Your task to perform on an android device: Open Maps and search for coffee Image 0: 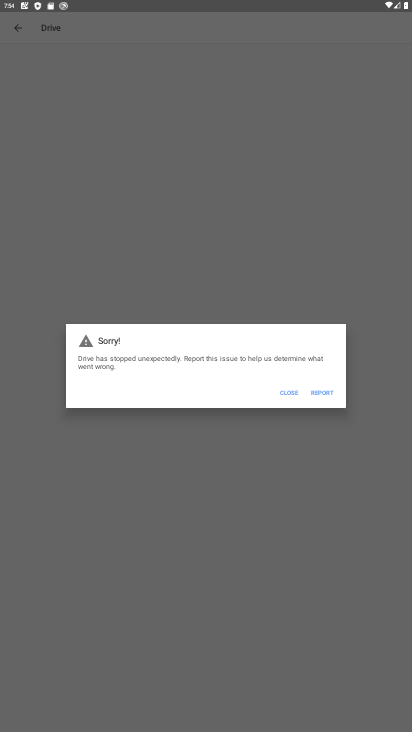
Step 0: press home button
Your task to perform on an android device: Open Maps and search for coffee Image 1: 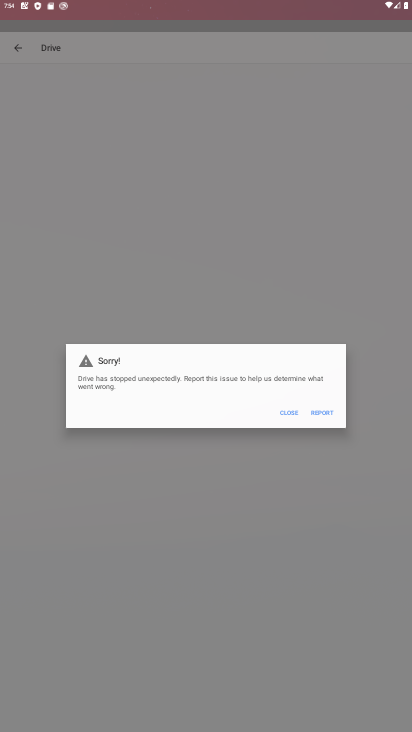
Step 1: drag from (209, 672) to (411, 529)
Your task to perform on an android device: Open Maps and search for coffee Image 2: 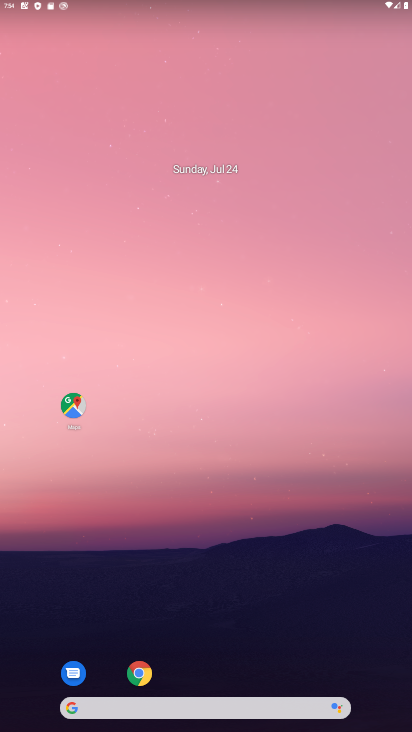
Step 2: drag from (183, 651) to (227, 0)
Your task to perform on an android device: Open Maps and search for coffee Image 3: 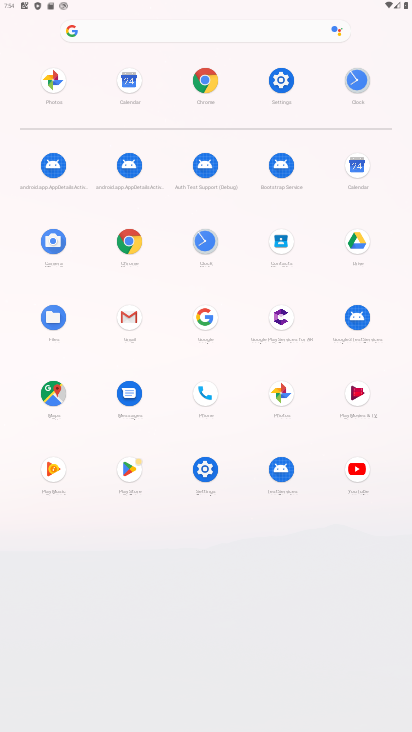
Step 3: click (45, 386)
Your task to perform on an android device: Open Maps and search for coffee Image 4: 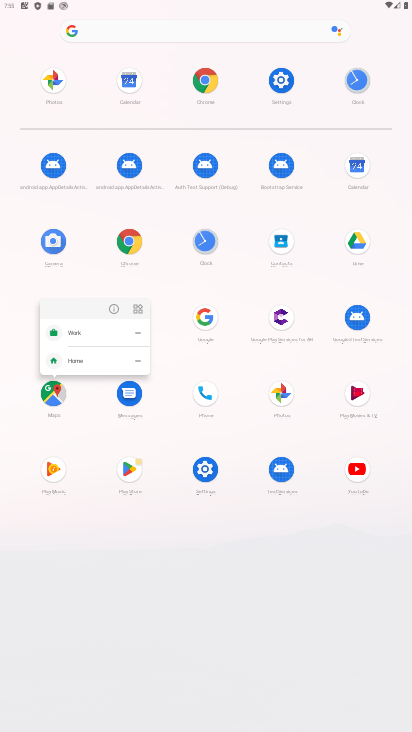
Step 4: click (113, 310)
Your task to perform on an android device: Open Maps and search for coffee Image 5: 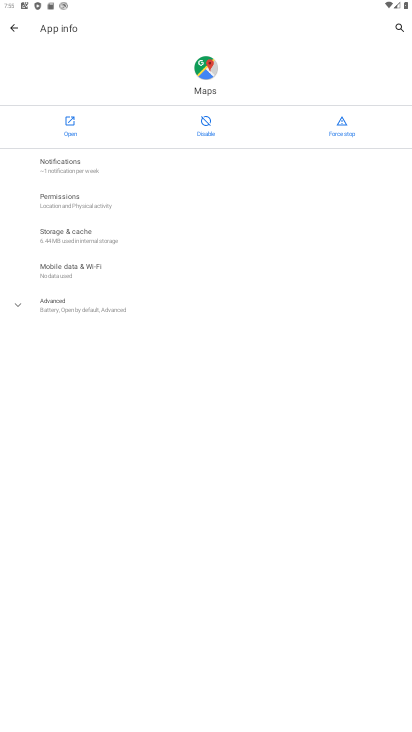
Step 5: drag from (188, 328) to (188, 237)
Your task to perform on an android device: Open Maps and search for coffee Image 6: 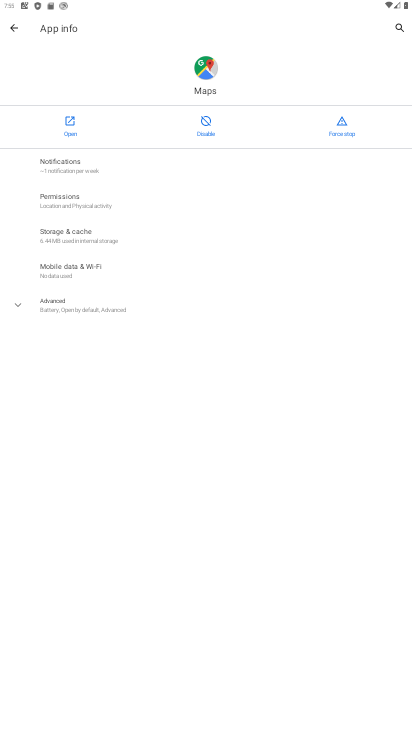
Step 6: click (67, 119)
Your task to perform on an android device: Open Maps and search for coffee Image 7: 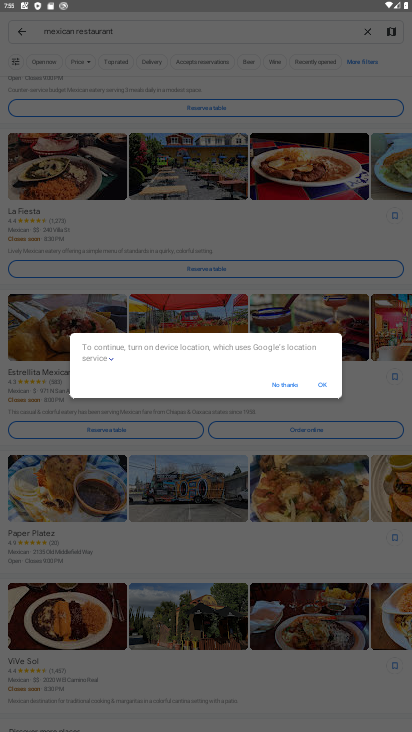
Step 7: click (317, 385)
Your task to perform on an android device: Open Maps and search for coffee Image 8: 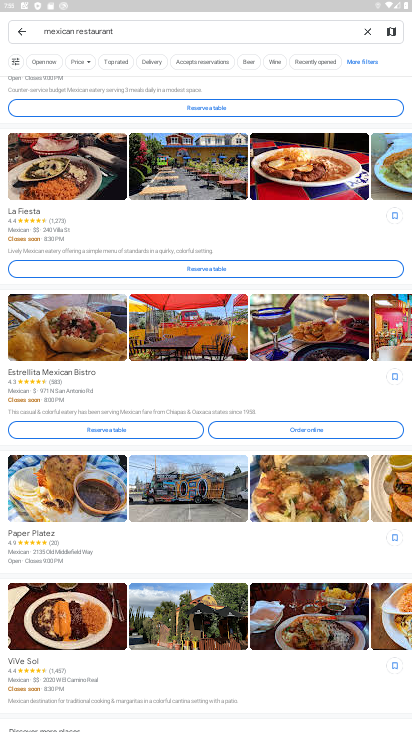
Step 8: click (126, 32)
Your task to perform on an android device: Open Maps and search for coffee Image 9: 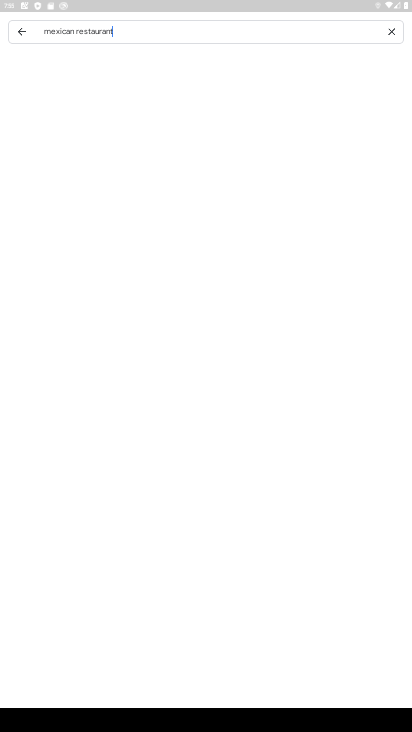
Step 9: click (385, 32)
Your task to perform on an android device: Open Maps and search for coffee Image 10: 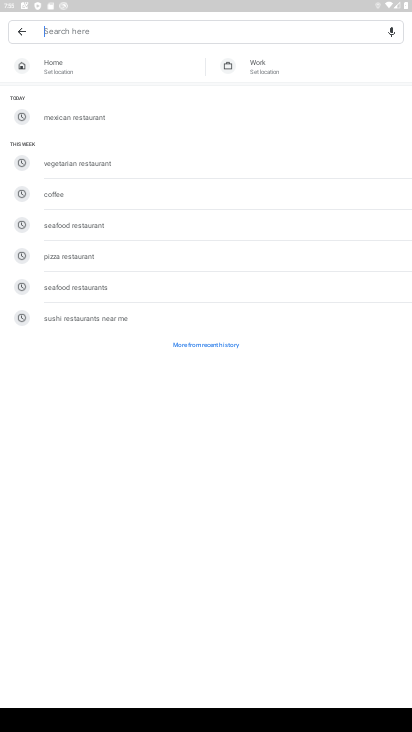
Step 10: click (71, 199)
Your task to perform on an android device: Open Maps and search for coffee Image 11: 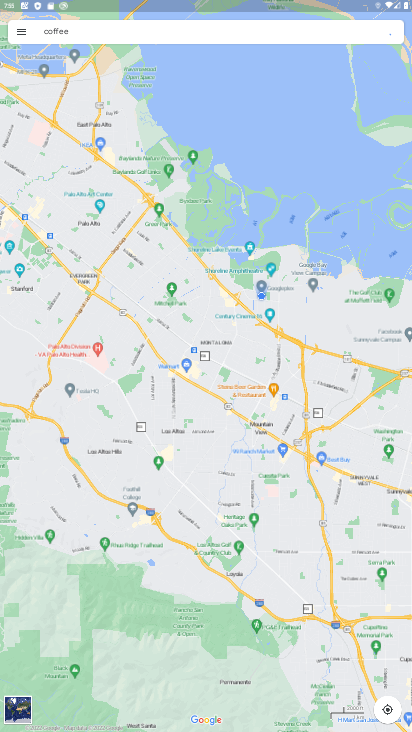
Step 11: task complete